Your task to perform on an android device: turn off sleep mode Image 0: 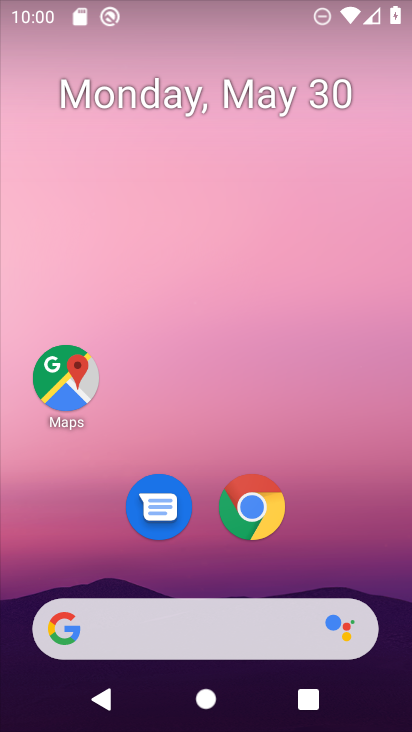
Step 0: drag from (172, 110) to (187, 554)
Your task to perform on an android device: turn off sleep mode Image 1: 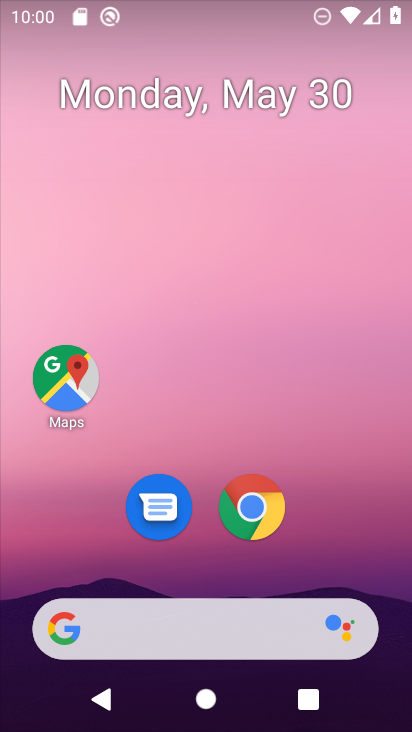
Step 1: drag from (200, 13) to (201, 416)
Your task to perform on an android device: turn off sleep mode Image 2: 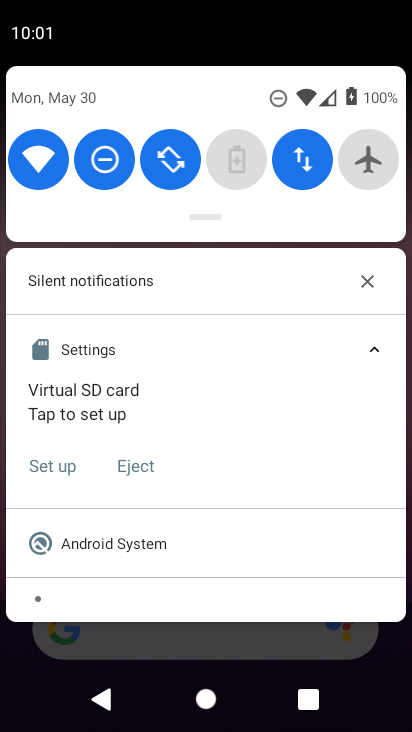
Step 2: drag from (210, 212) to (182, 598)
Your task to perform on an android device: turn off sleep mode Image 3: 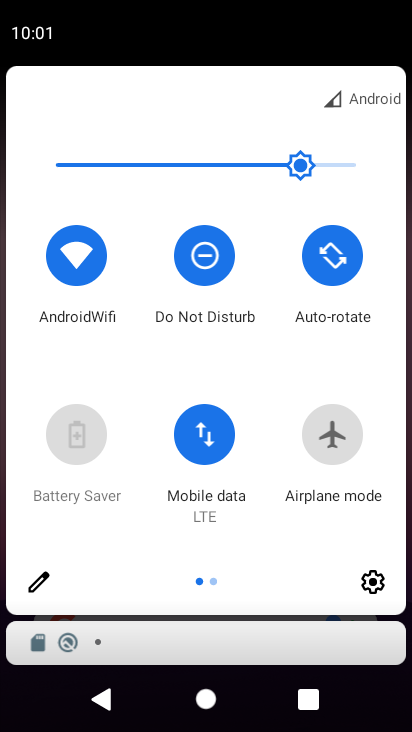
Step 3: click (42, 579)
Your task to perform on an android device: turn off sleep mode Image 4: 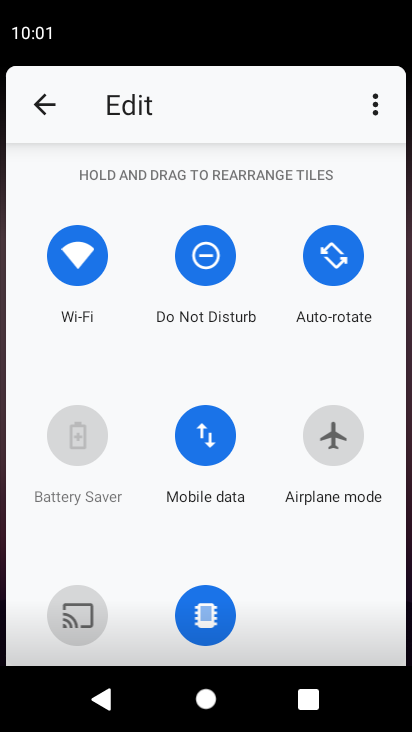
Step 4: task complete